Your task to perform on an android device: Open privacy settings Image 0: 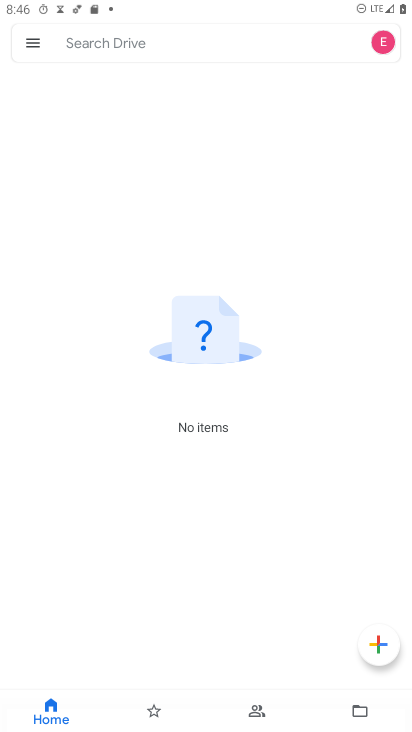
Step 0: press home button
Your task to perform on an android device: Open privacy settings Image 1: 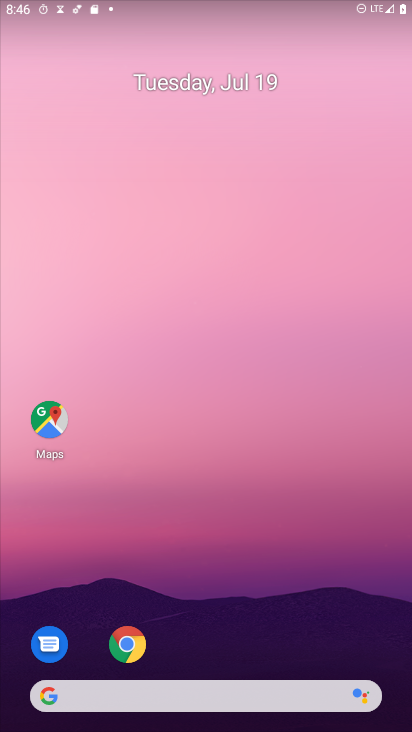
Step 1: drag from (66, 509) to (184, 173)
Your task to perform on an android device: Open privacy settings Image 2: 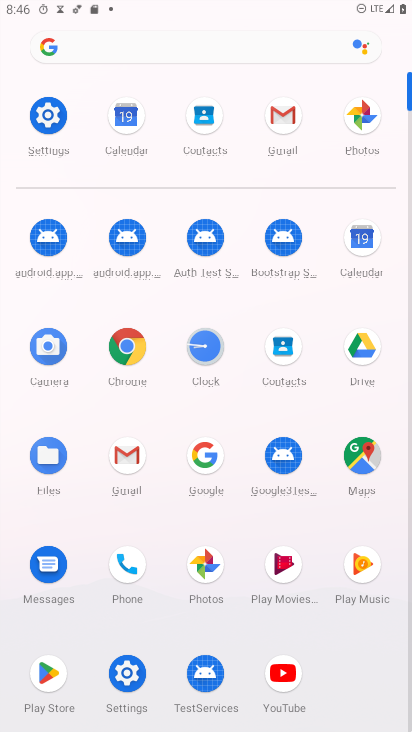
Step 2: click (120, 683)
Your task to perform on an android device: Open privacy settings Image 3: 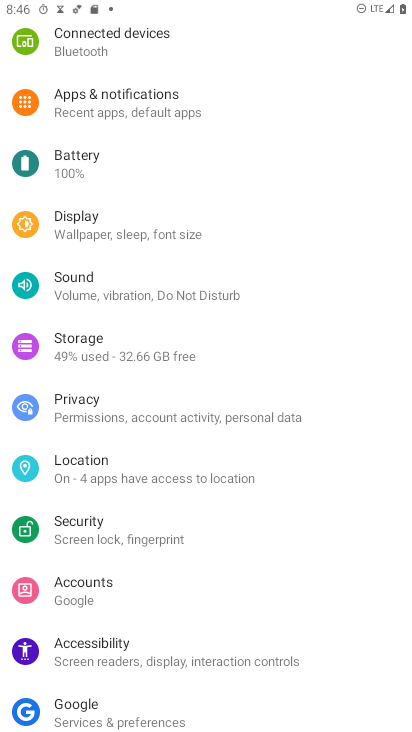
Step 3: click (130, 388)
Your task to perform on an android device: Open privacy settings Image 4: 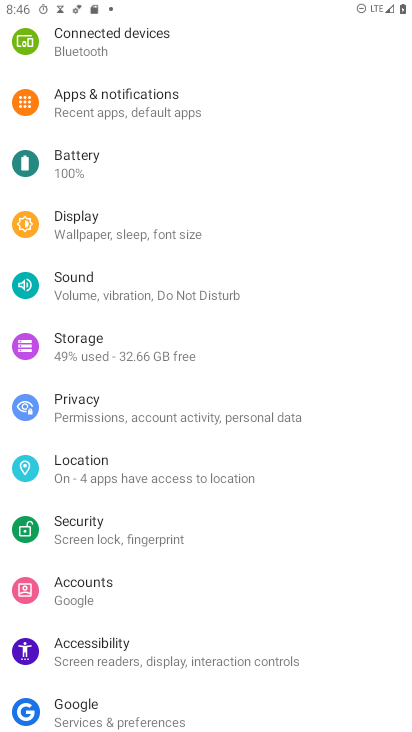
Step 4: click (127, 408)
Your task to perform on an android device: Open privacy settings Image 5: 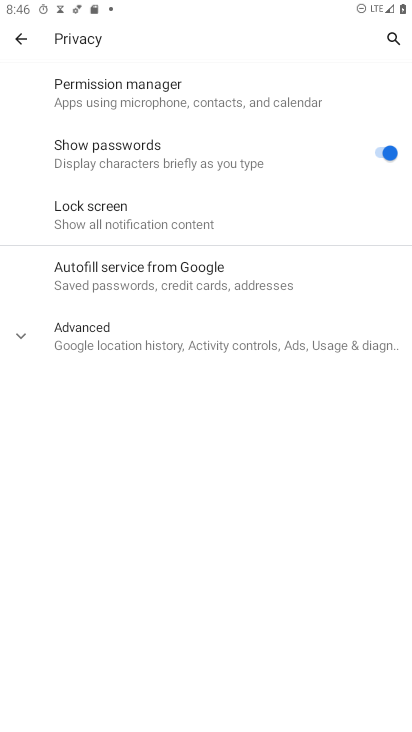
Step 5: task complete